Your task to perform on an android device: Go to notification settings Image 0: 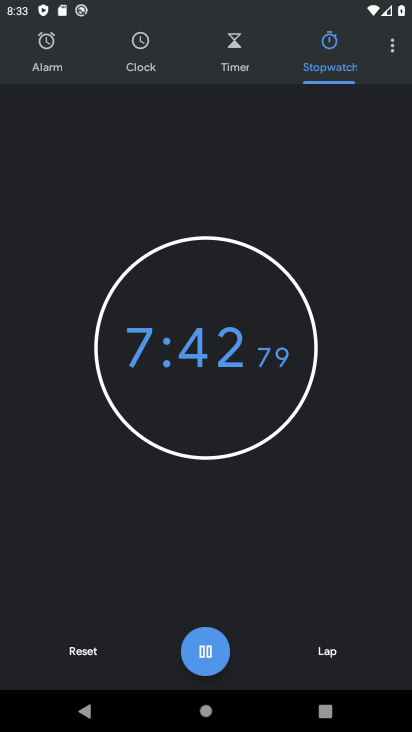
Step 0: click (385, 51)
Your task to perform on an android device: Go to notification settings Image 1: 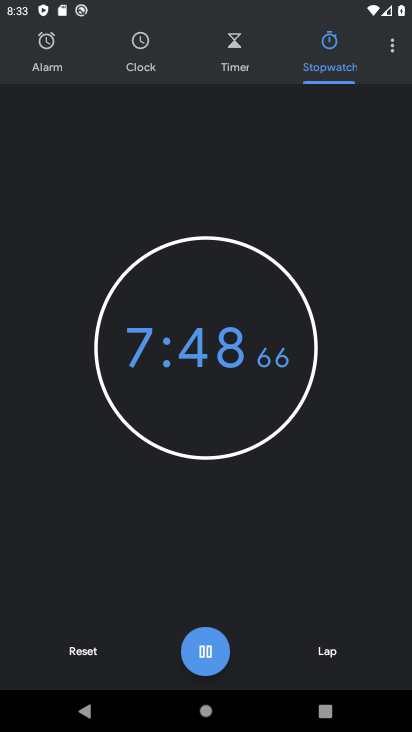
Step 1: drag from (80, 662) to (103, 725)
Your task to perform on an android device: Go to notification settings Image 2: 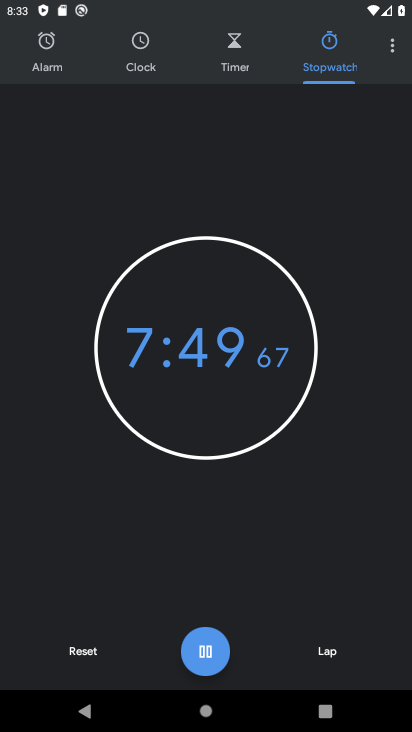
Step 2: click (92, 709)
Your task to perform on an android device: Go to notification settings Image 3: 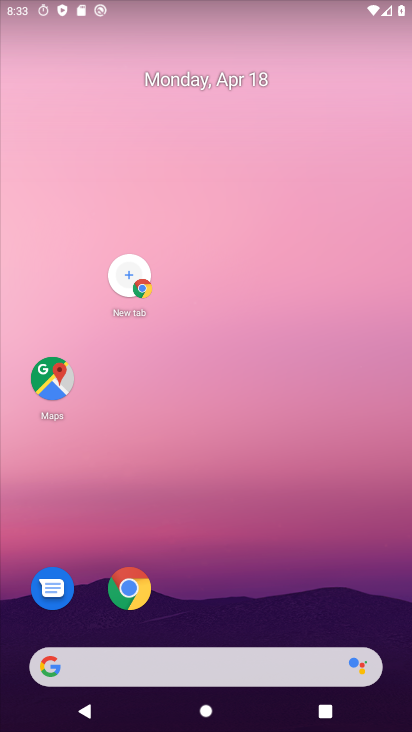
Step 3: drag from (289, 521) to (154, 104)
Your task to perform on an android device: Go to notification settings Image 4: 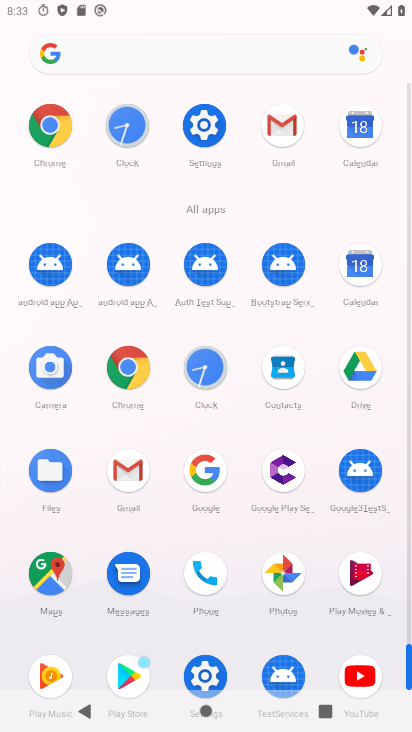
Step 4: click (206, 119)
Your task to perform on an android device: Go to notification settings Image 5: 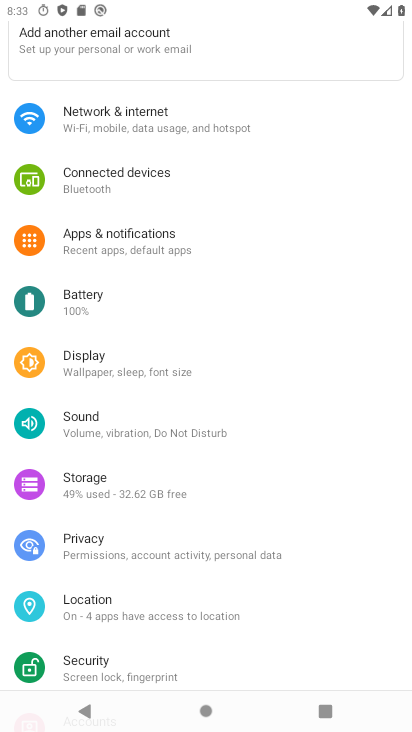
Step 5: click (128, 240)
Your task to perform on an android device: Go to notification settings Image 6: 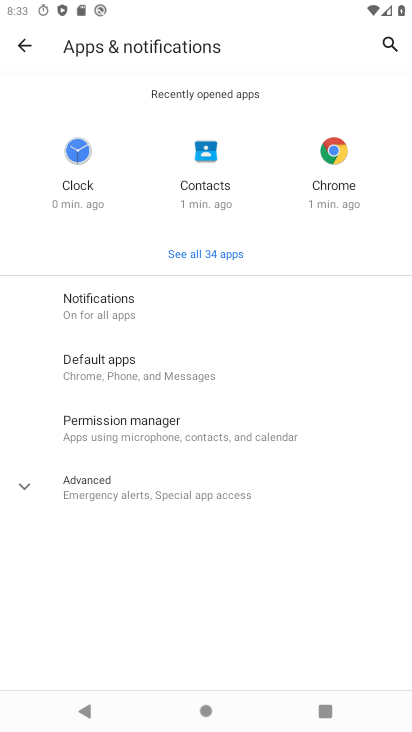
Step 6: click (73, 302)
Your task to perform on an android device: Go to notification settings Image 7: 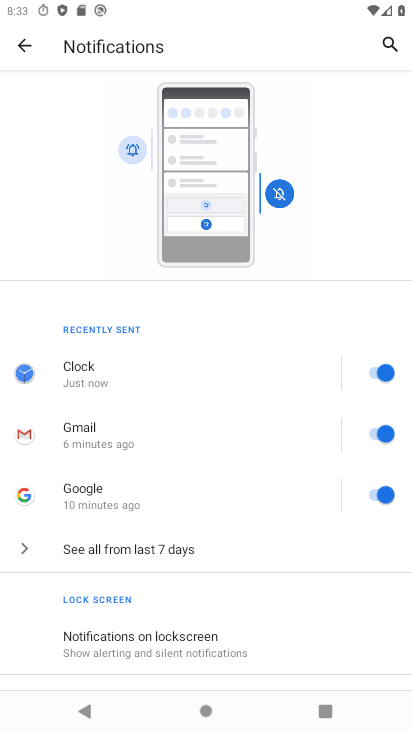
Step 7: task complete